Your task to perform on an android device: Open internet settings Image 0: 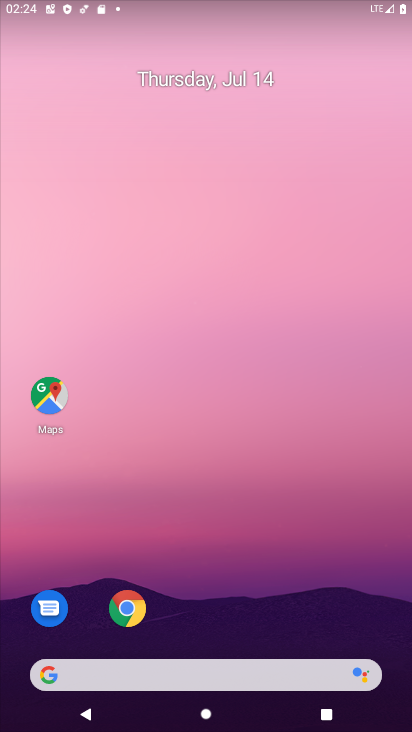
Step 0: drag from (20, 656) to (224, 87)
Your task to perform on an android device: Open internet settings Image 1: 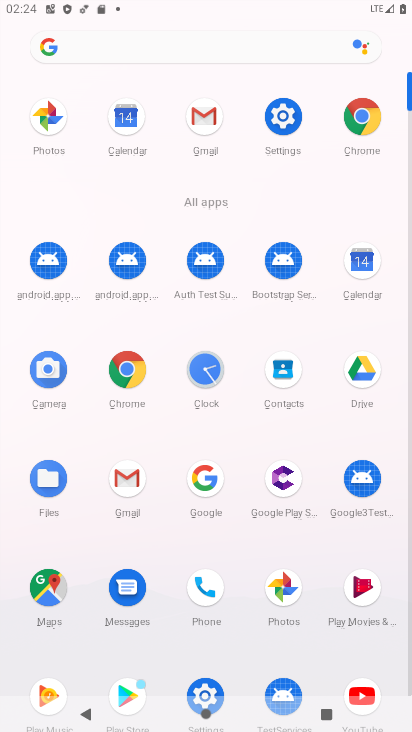
Step 1: click (291, 113)
Your task to perform on an android device: Open internet settings Image 2: 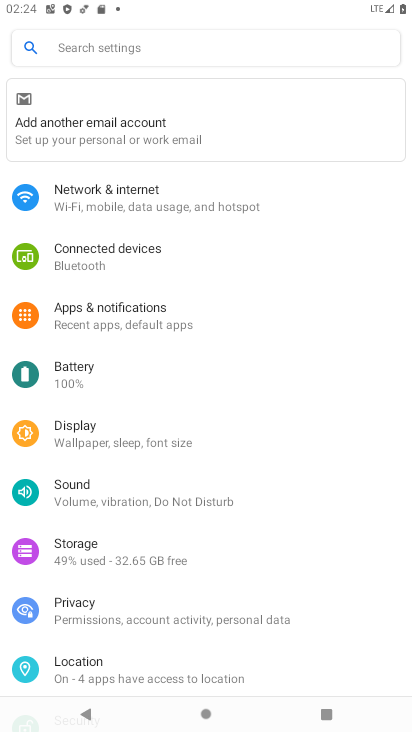
Step 2: click (73, 200)
Your task to perform on an android device: Open internet settings Image 3: 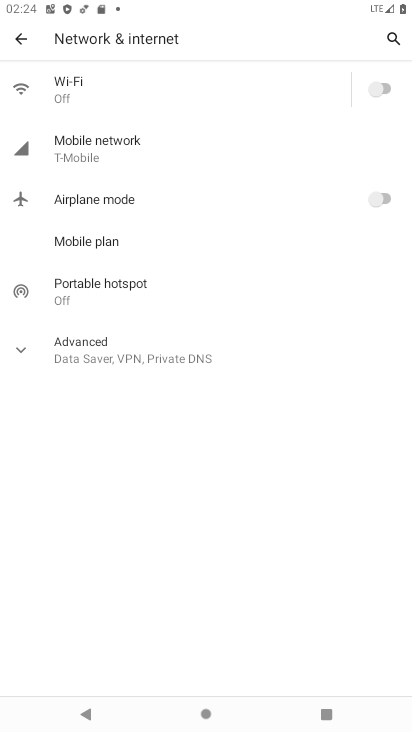
Step 3: click (148, 141)
Your task to perform on an android device: Open internet settings Image 4: 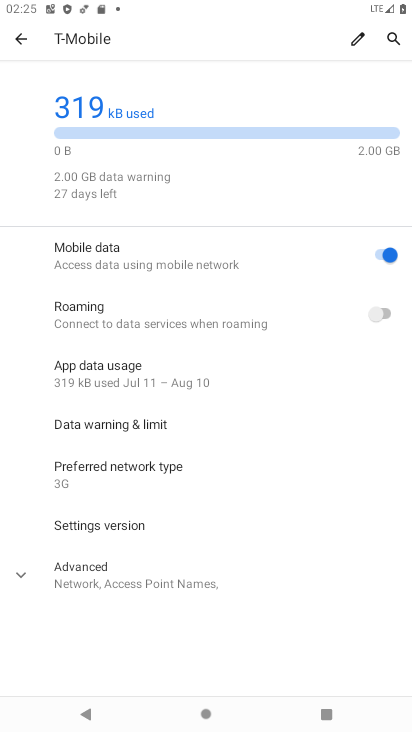
Step 4: task complete